Your task to perform on an android device: change the upload size in google photos Image 0: 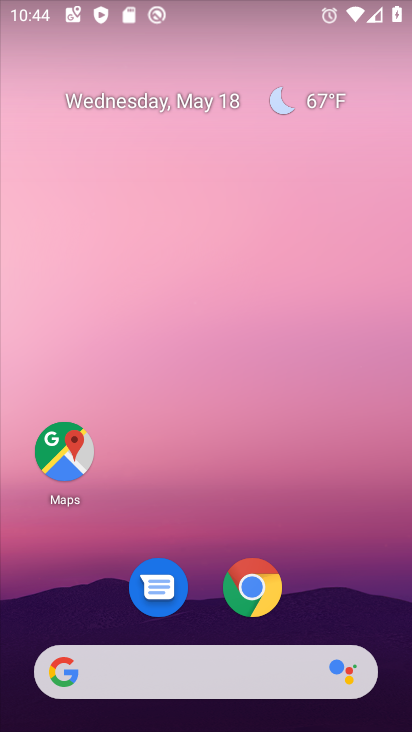
Step 0: drag from (307, 596) to (268, 130)
Your task to perform on an android device: change the upload size in google photos Image 1: 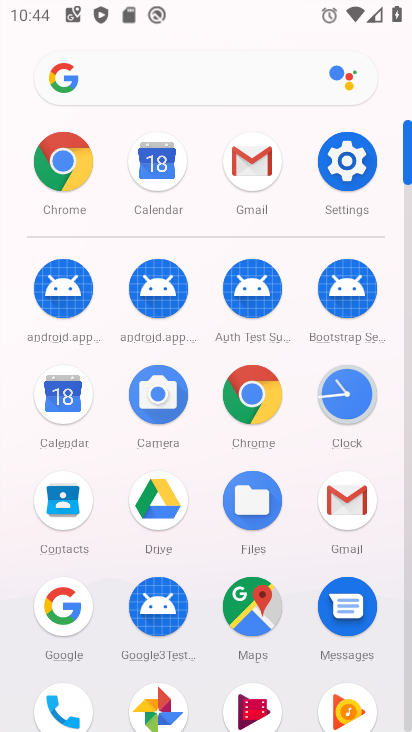
Step 1: click (163, 700)
Your task to perform on an android device: change the upload size in google photos Image 2: 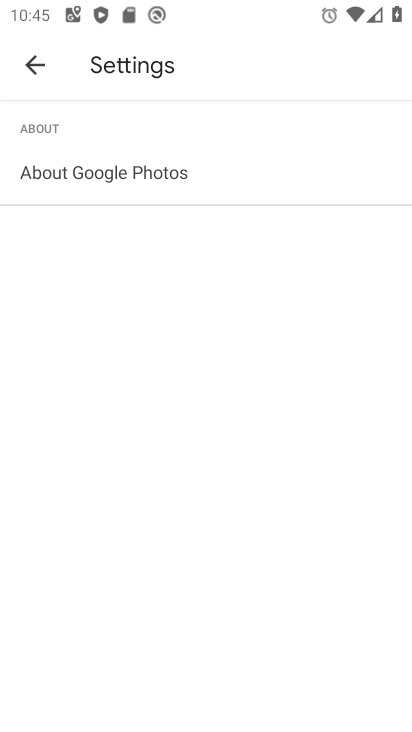
Step 2: click (37, 71)
Your task to perform on an android device: change the upload size in google photos Image 3: 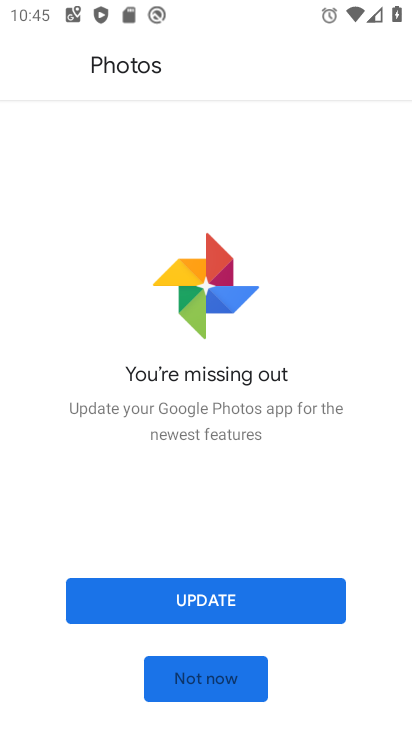
Step 3: click (214, 583)
Your task to perform on an android device: change the upload size in google photos Image 4: 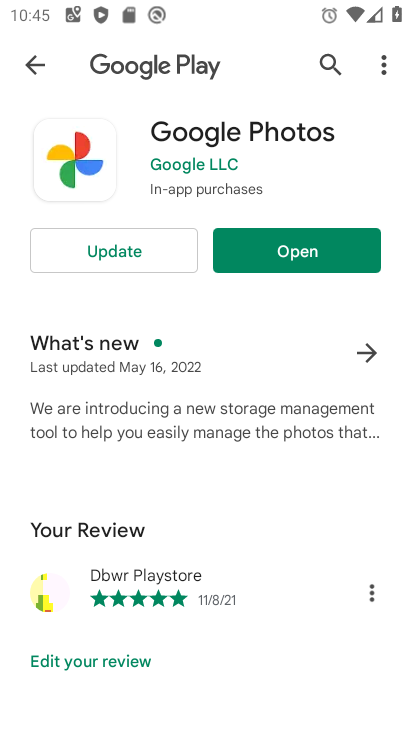
Step 4: click (146, 258)
Your task to perform on an android device: change the upload size in google photos Image 5: 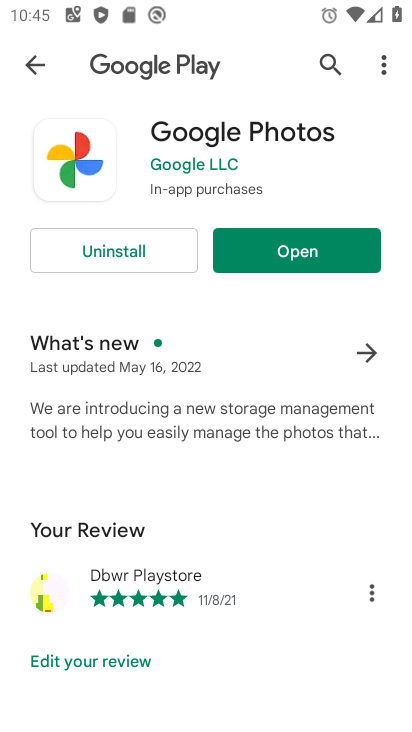
Step 5: click (247, 255)
Your task to perform on an android device: change the upload size in google photos Image 6: 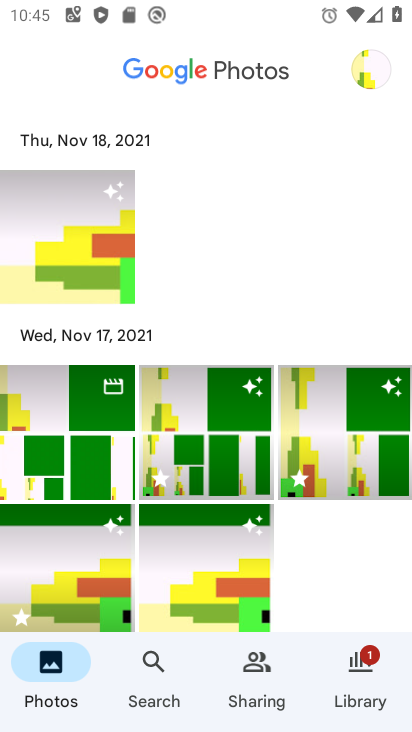
Step 6: drag from (319, 517) to (289, 4)
Your task to perform on an android device: change the upload size in google photos Image 7: 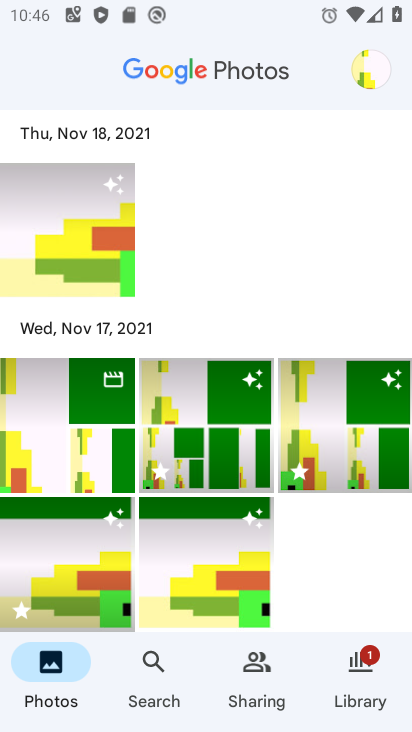
Step 7: click (377, 59)
Your task to perform on an android device: change the upload size in google photos Image 8: 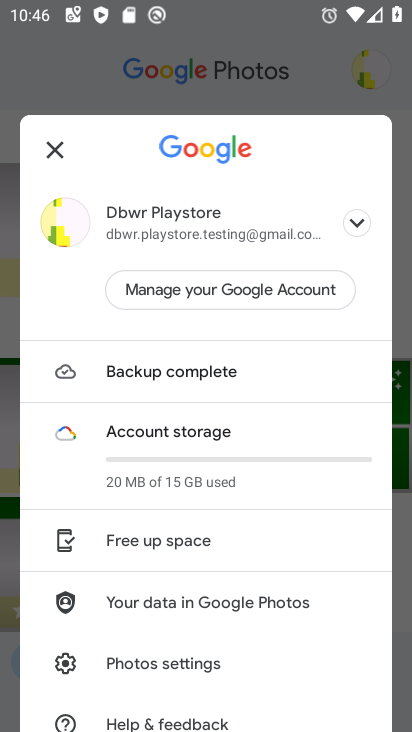
Step 8: drag from (198, 526) to (247, 163)
Your task to perform on an android device: change the upload size in google photos Image 9: 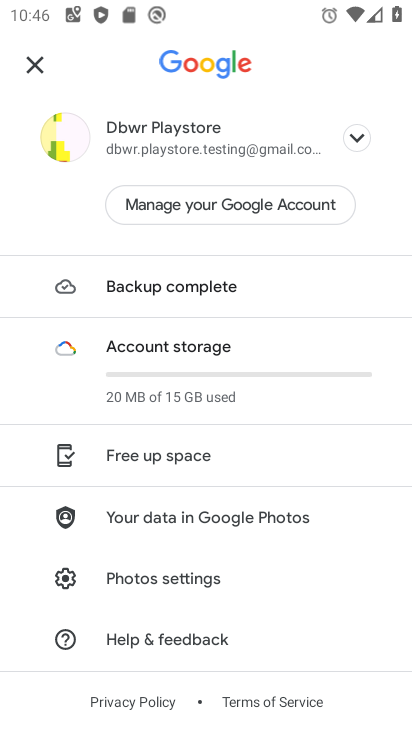
Step 9: click (173, 576)
Your task to perform on an android device: change the upload size in google photos Image 10: 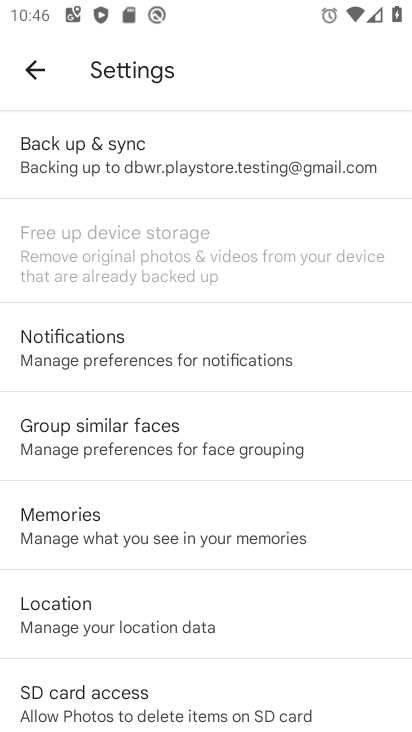
Step 10: drag from (224, 689) to (211, 325)
Your task to perform on an android device: change the upload size in google photos Image 11: 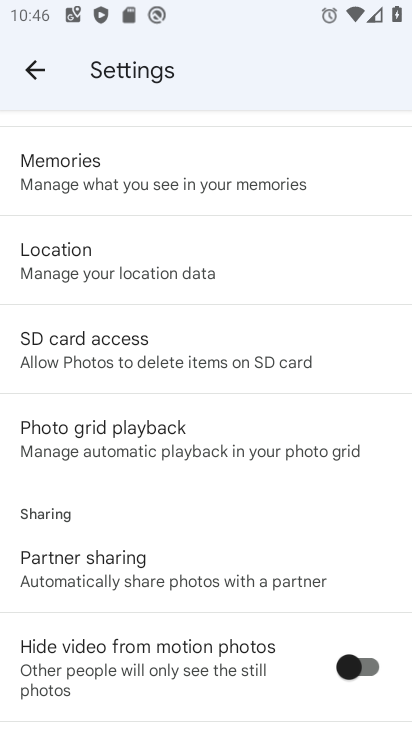
Step 11: drag from (193, 441) to (215, 226)
Your task to perform on an android device: change the upload size in google photos Image 12: 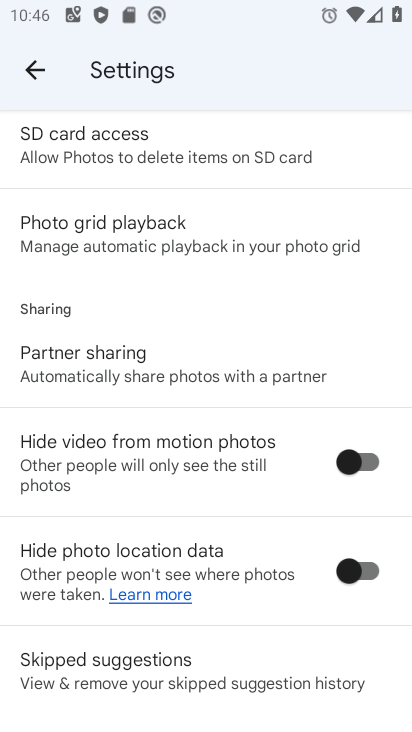
Step 12: drag from (204, 565) to (196, 242)
Your task to perform on an android device: change the upload size in google photos Image 13: 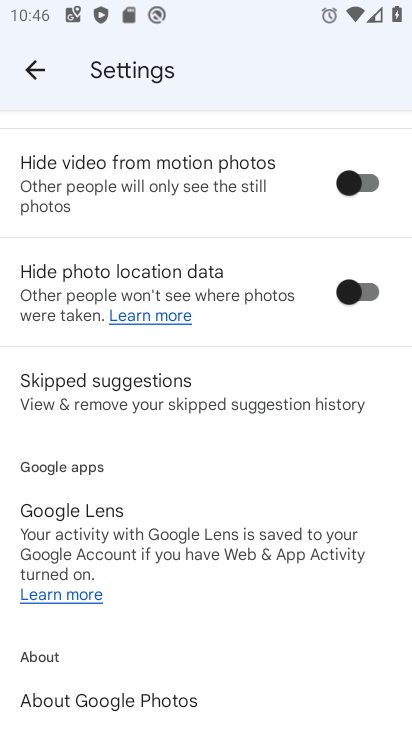
Step 13: drag from (172, 554) to (221, 174)
Your task to perform on an android device: change the upload size in google photos Image 14: 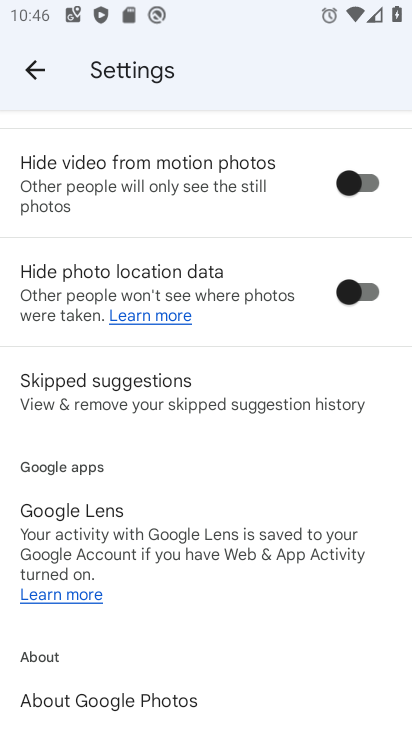
Step 14: press back button
Your task to perform on an android device: change the upload size in google photos Image 15: 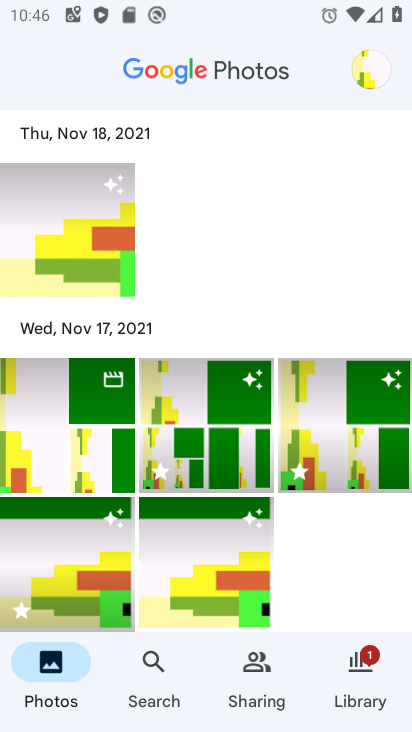
Step 15: click (92, 438)
Your task to perform on an android device: change the upload size in google photos Image 16: 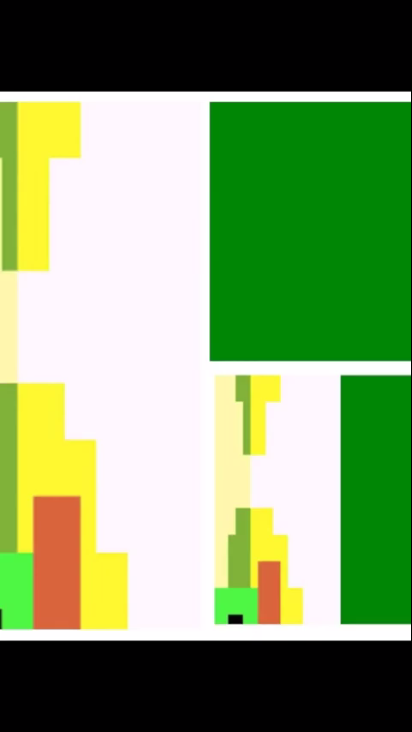
Step 16: click (123, 428)
Your task to perform on an android device: change the upload size in google photos Image 17: 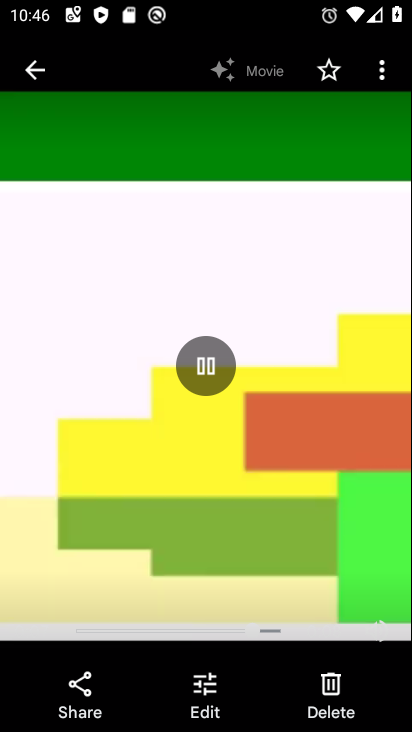
Step 17: click (383, 78)
Your task to perform on an android device: change the upload size in google photos Image 18: 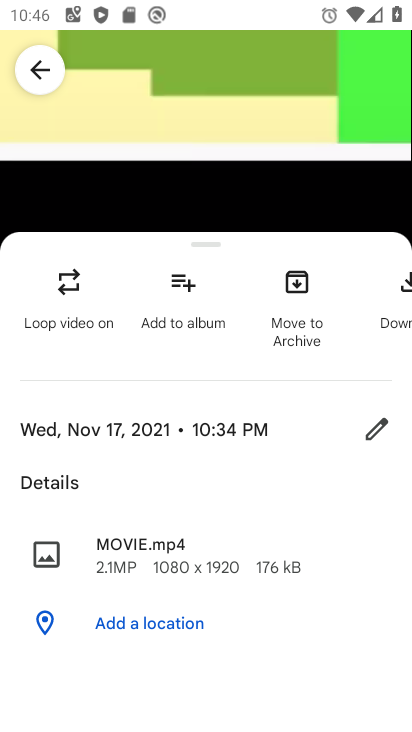
Step 18: task complete